Your task to perform on an android device: change alarm snooze length Image 0: 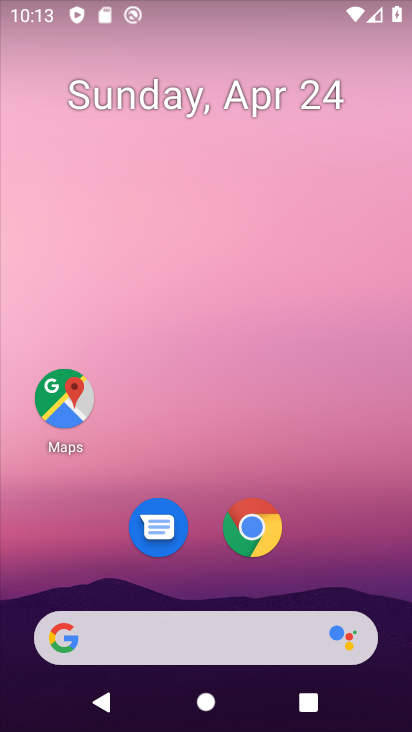
Step 0: drag from (214, 558) to (175, 2)
Your task to perform on an android device: change alarm snooze length Image 1: 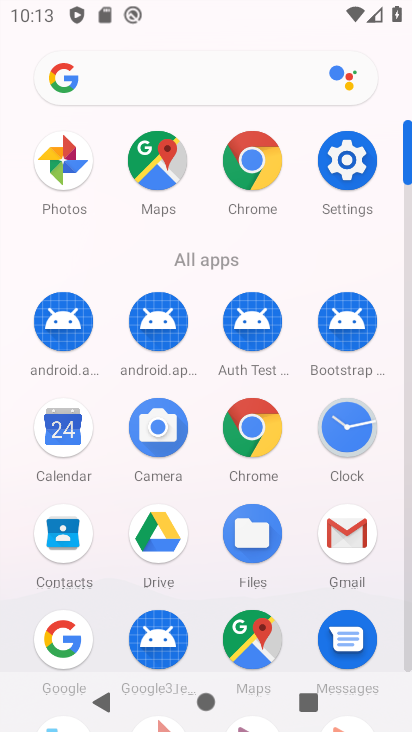
Step 1: drag from (191, 541) to (216, 256)
Your task to perform on an android device: change alarm snooze length Image 2: 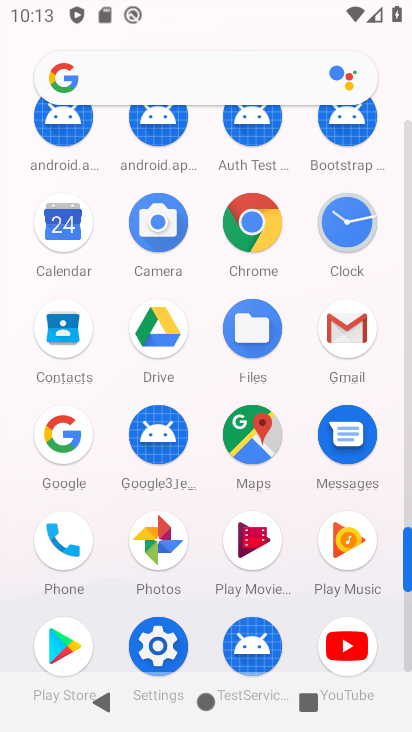
Step 2: click (350, 237)
Your task to perform on an android device: change alarm snooze length Image 3: 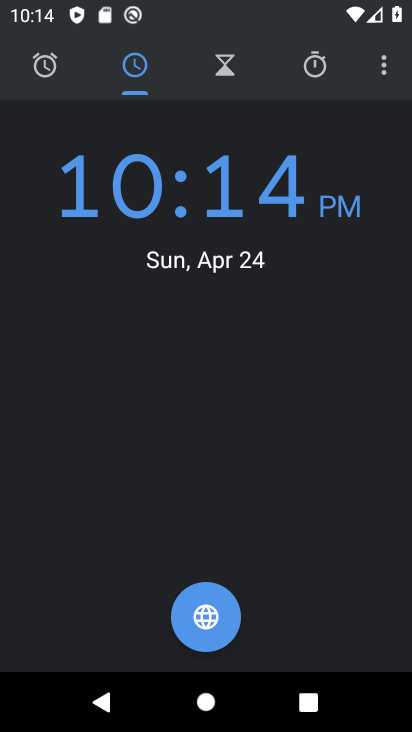
Step 3: click (383, 68)
Your task to perform on an android device: change alarm snooze length Image 4: 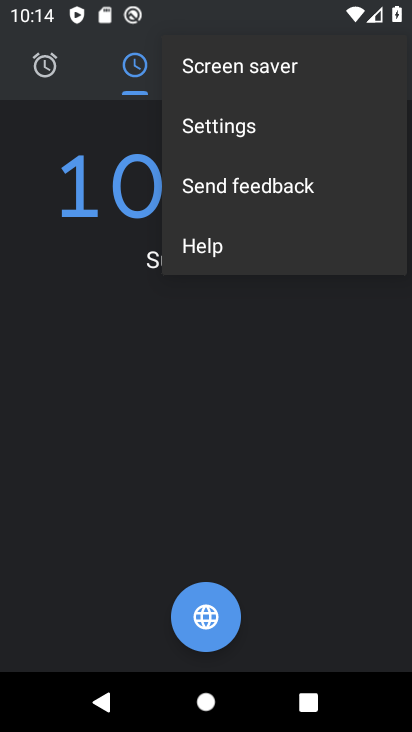
Step 4: click (226, 132)
Your task to perform on an android device: change alarm snooze length Image 5: 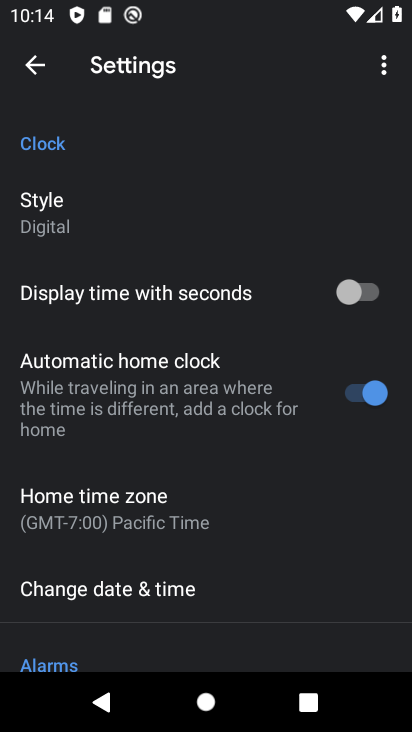
Step 5: drag from (131, 490) to (173, 198)
Your task to perform on an android device: change alarm snooze length Image 6: 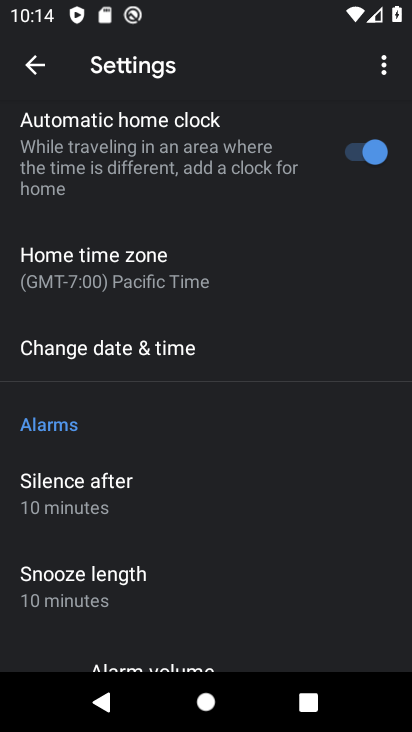
Step 6: drag from (123, 405) to (137, 139)
Your task to perform on an android device: change alarm snooze length Image 7: 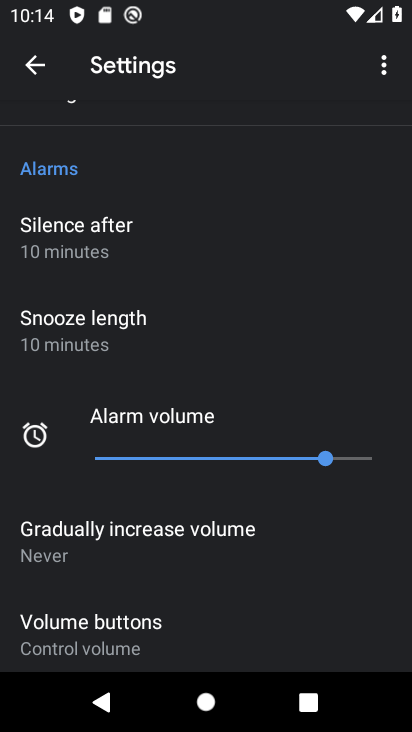
Step 7: click (86, 342)
Your task to perform on an android device: change alarm snooze length Image 8: 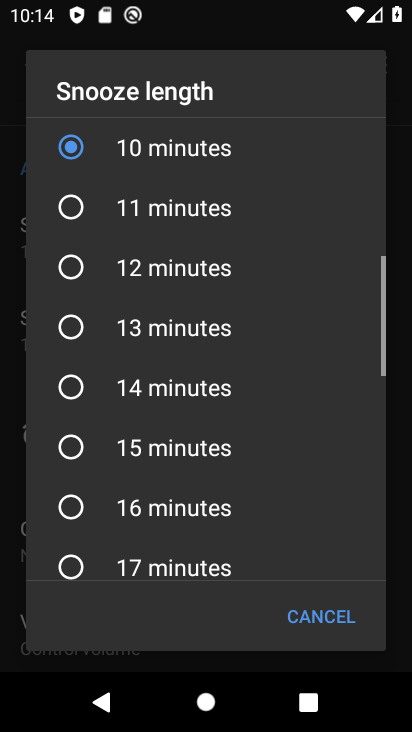
Step 8: click (74, 324)
Your task to perform on an android device: change alarm snooze length Image 9: 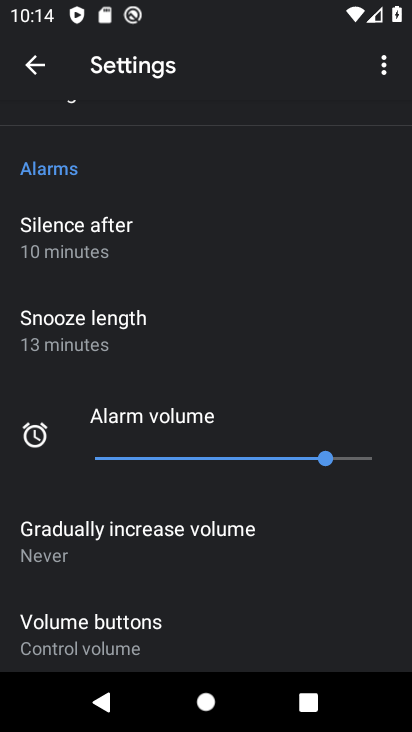
Step 9: task complete